Your task to perform on an android device: Go to Google maps Image 0: 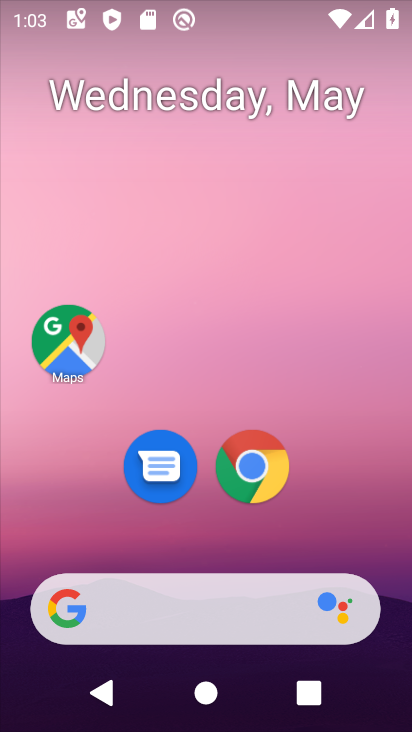
Step 0: click (71, 343)
Your task to perform on an android device: Go to Google maps Image 1: 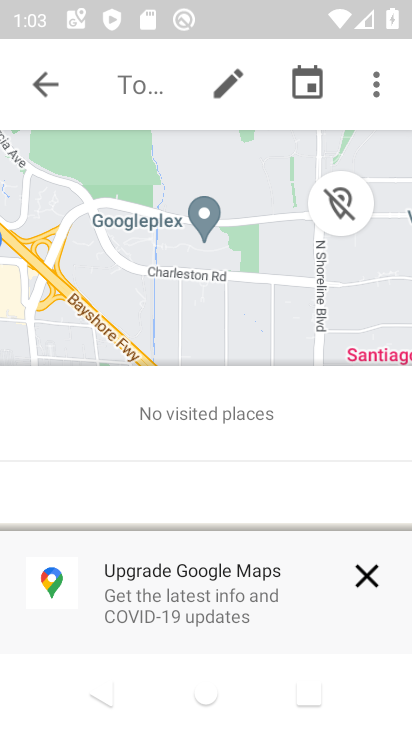
Step 1: task complete